Your task to perform on an android device: Go to Wikipedia Image 0: 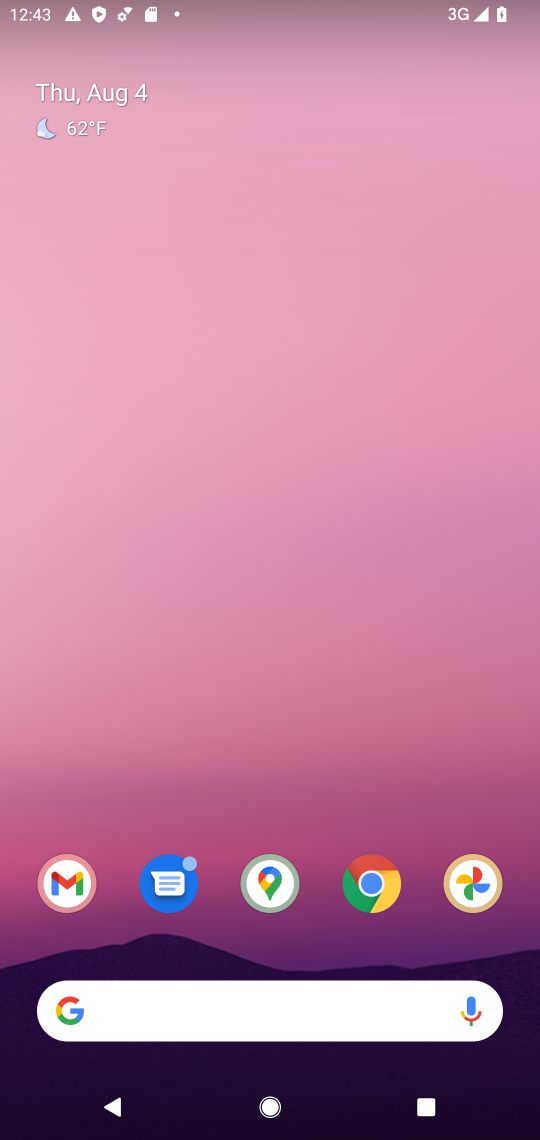
Step 0: drag from (216, 898) to (261, 414)
Your task to perform on an android device: Go to Wikipedia Image 1: 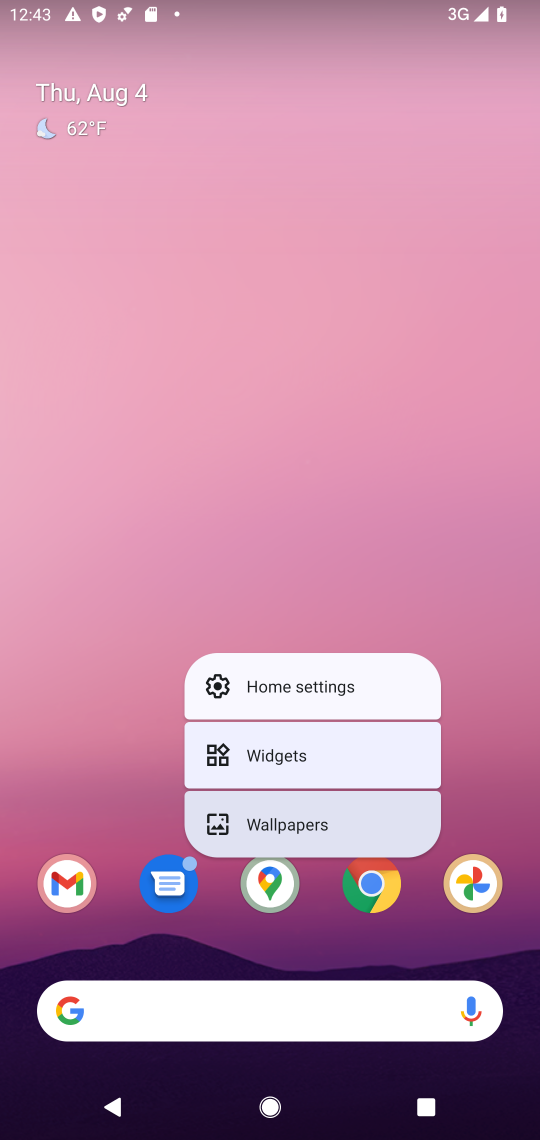
Step 1: drag from (233, 946) to (268, 423)
Your task to perform on an android device: Go to Wikipedia Image 2: 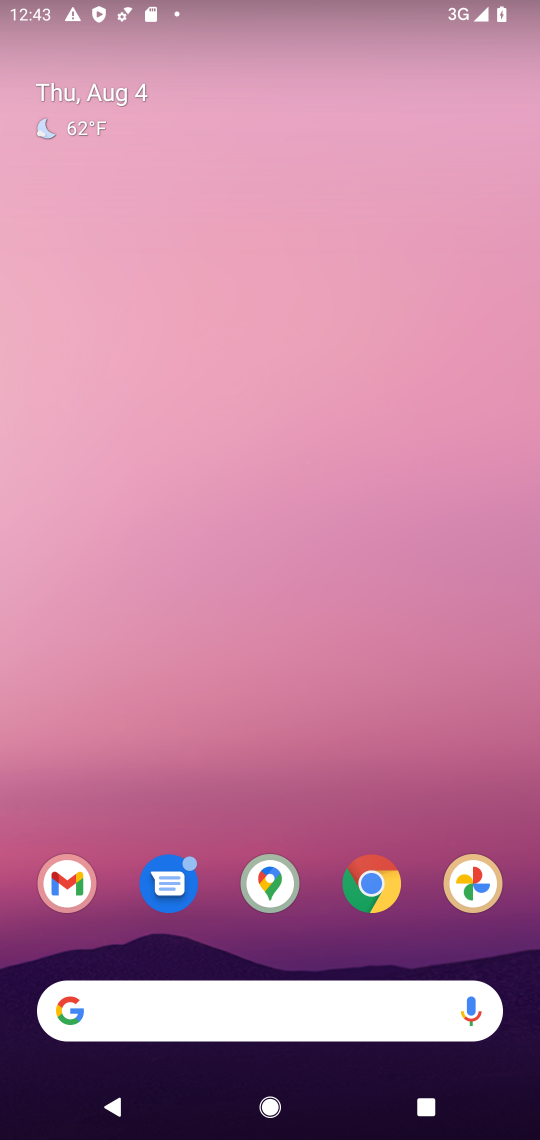
Step 2: drag from (213, 933) to (258, 307)
Your task to perform on an android device: Go to Wikipedia Image 3: 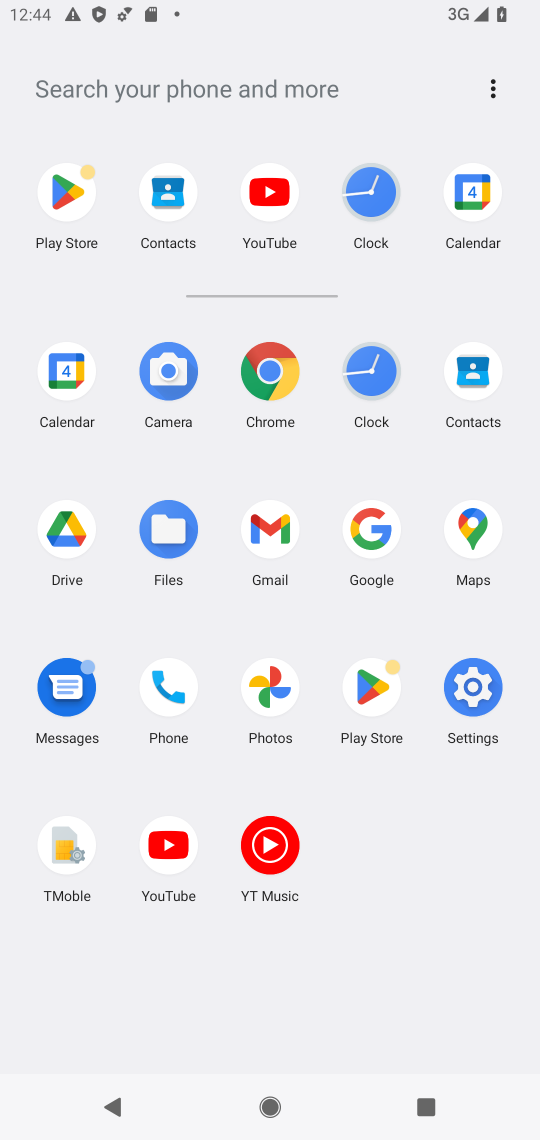
Step 3: click (254, 79)
Your task to perform on an android device: Go to Wikipedia Image 4: 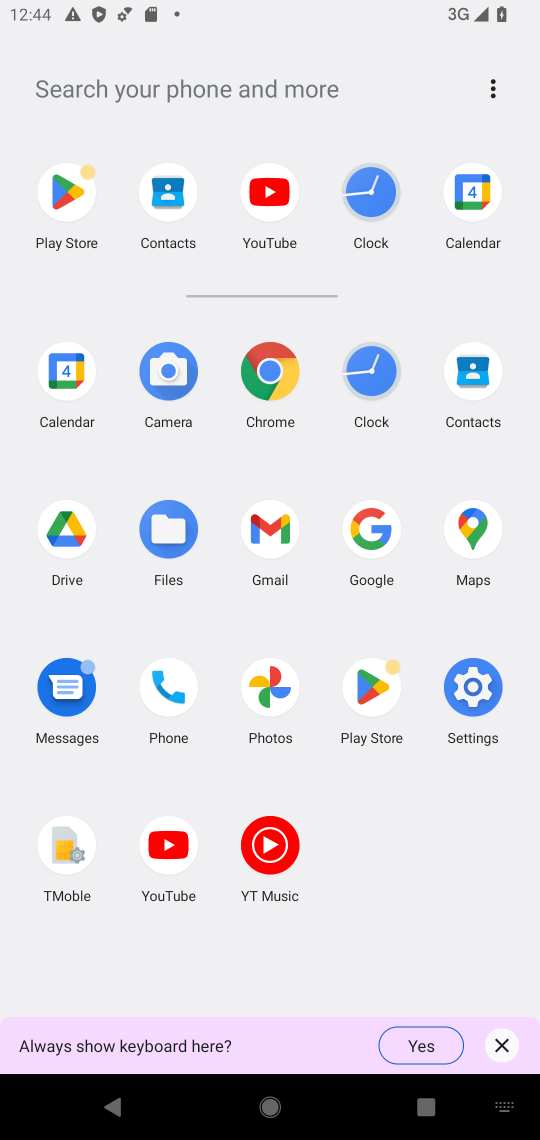
Step 4: type "Wikipedia"
Your task to perform on an android device: Go to Wikipedia Image 5: 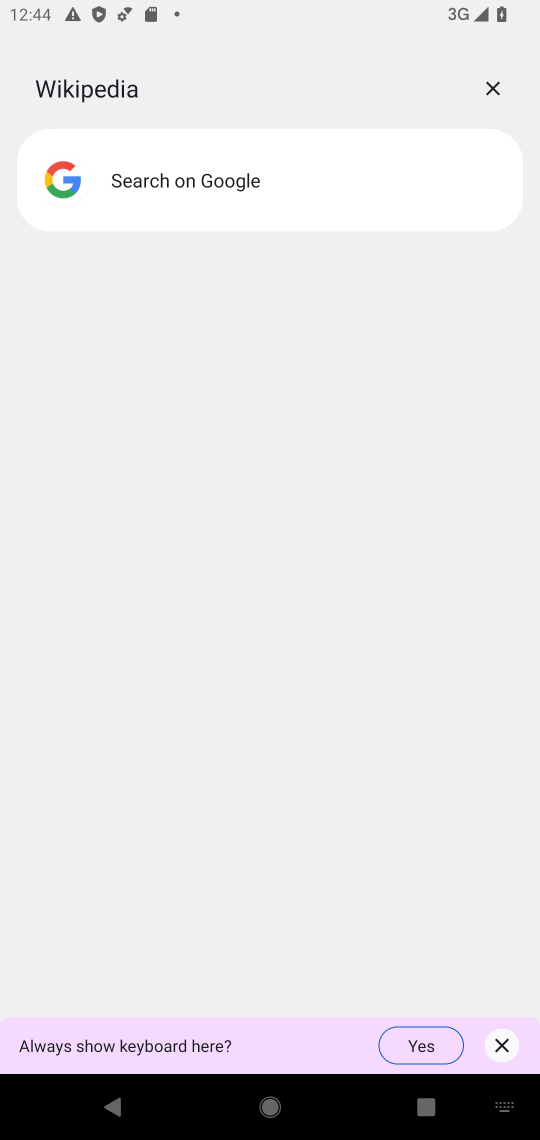
Step 5: click (150, 167)
Your task to perform on an android device: Go to Wikipedia Image 6: 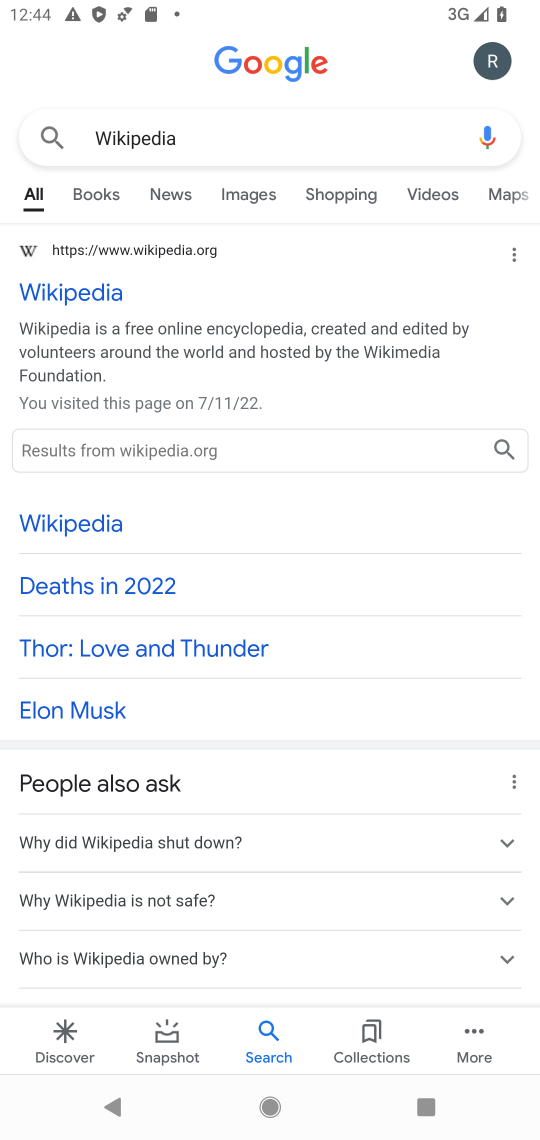
Step 6: click (25, 302)
Your task to perform on an android device: Go to Wikipedia Image 7: 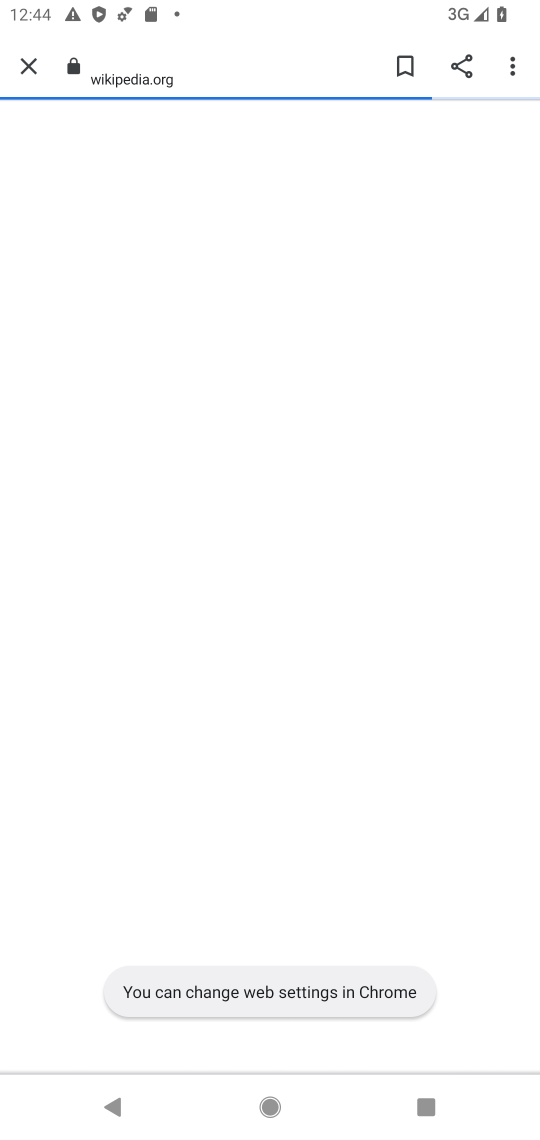
Step 7: task complete